Your task to perform on an android device: Add "panasonic triple a" to the cart on target.com Image 0: 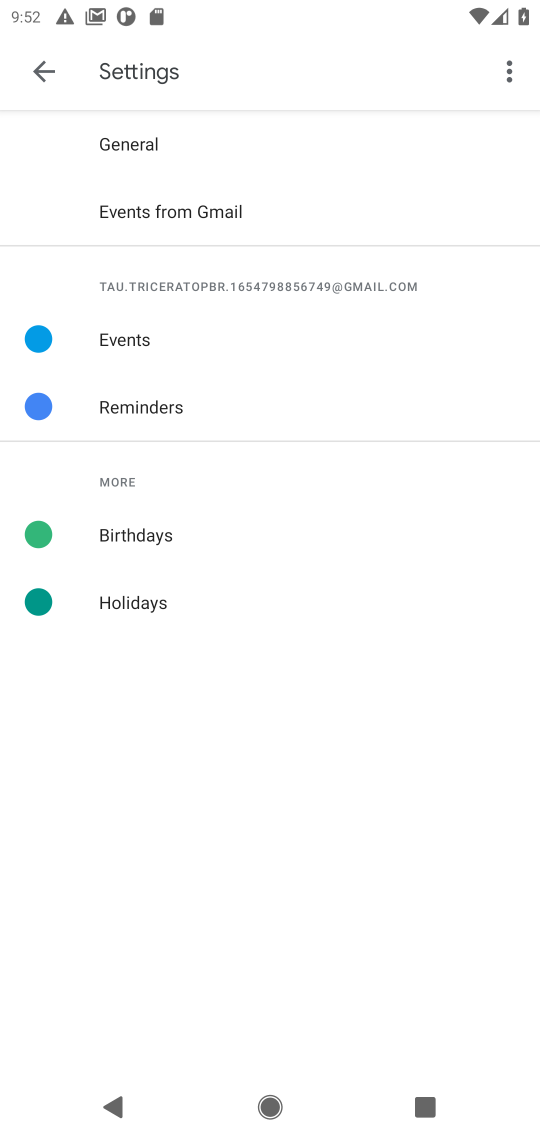
Step 0: press home button
Your task to perform on an android device: Add "panasonic triple a" to the cart on target.com Image 1: 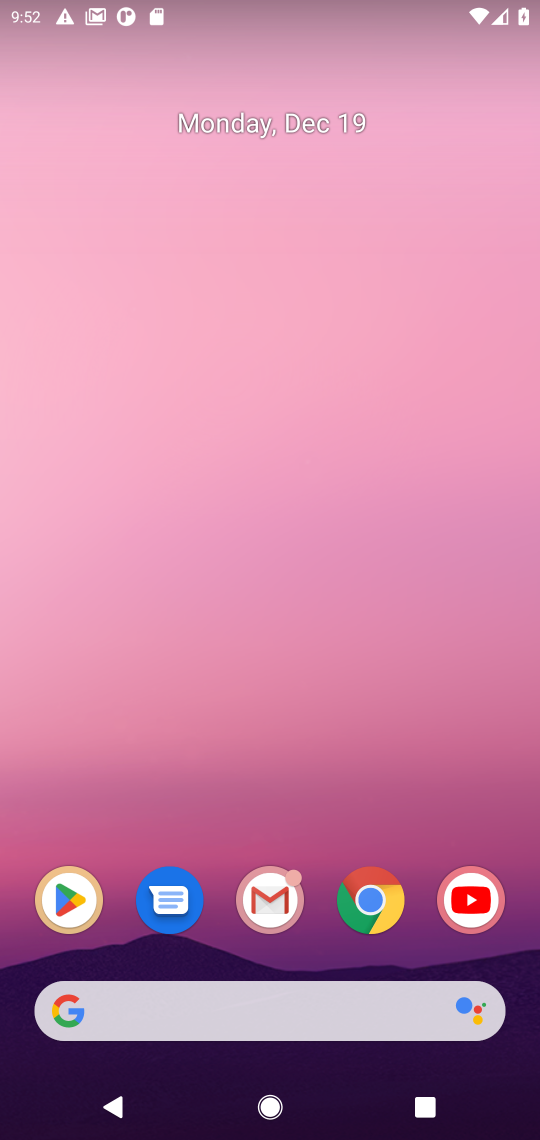
Step 1: type "target"
Your task to perform on an android device: Add "panasonic triple a" to the cart on target.com Image 2: 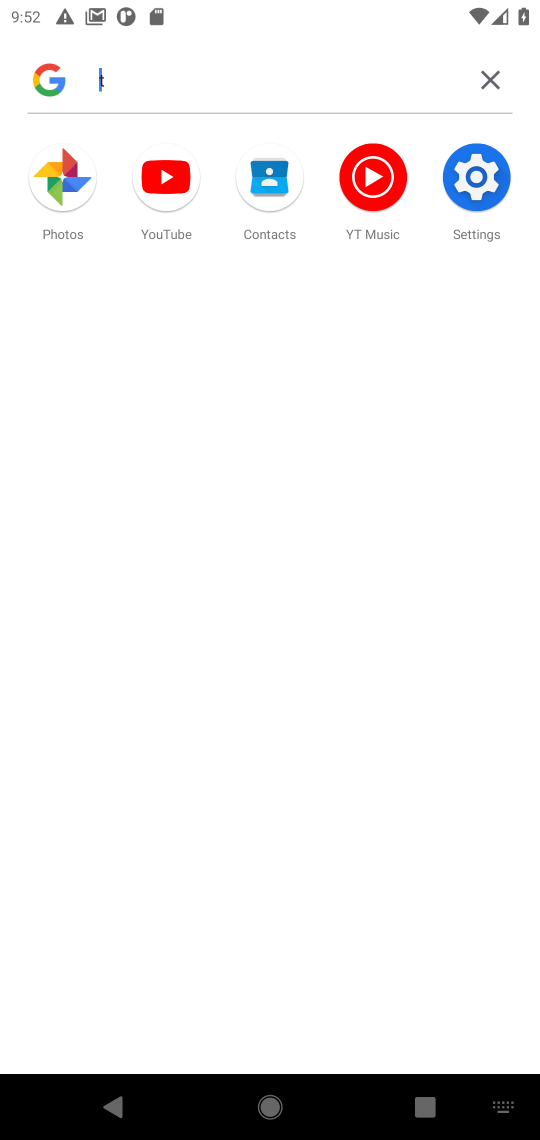
Step 2: click (489, 75)
Your task to perform on an android device: Add "panasonic triple a" to the cart on target.com Image 3: 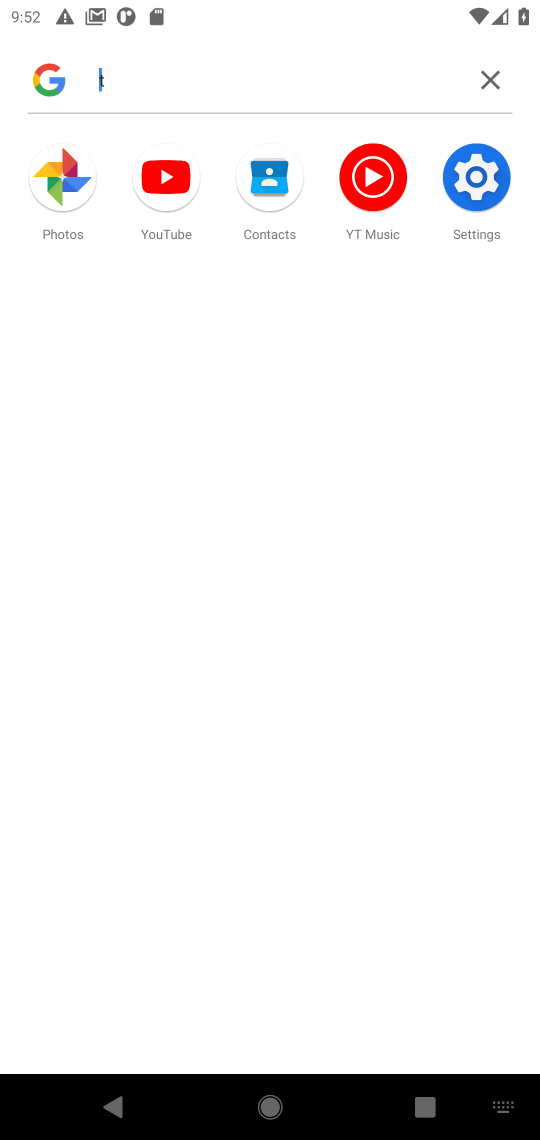
Step 3: click (406, 78)
Your task to perform on an android device: Add "panasonic triple a" to the cart on target.com Image 4: 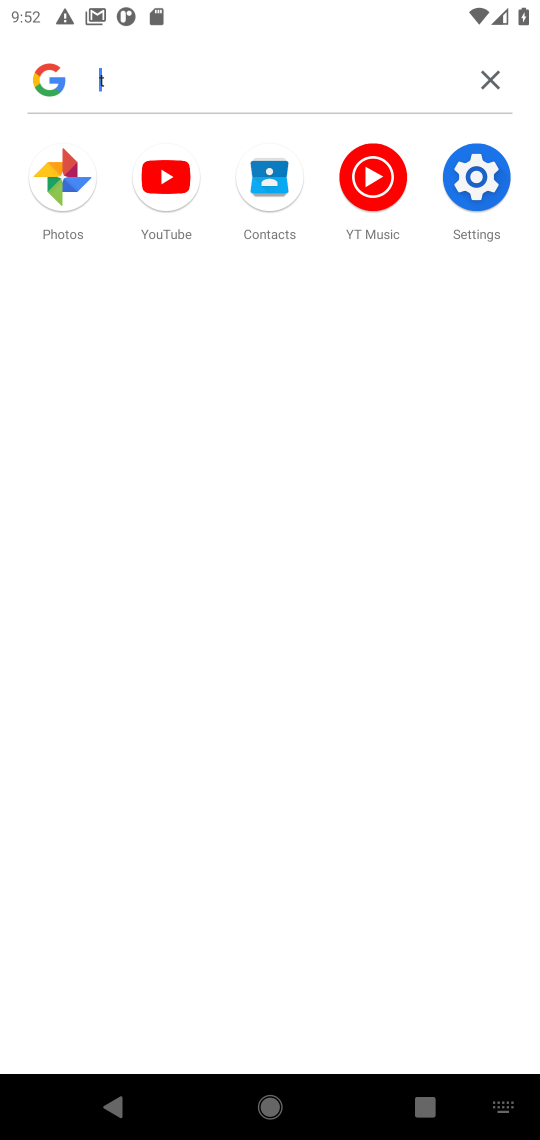
Step 4: click (487, 79)
Your task to perform on an android device: Add "panasonic triple a" to the cart on target.com Image 5: 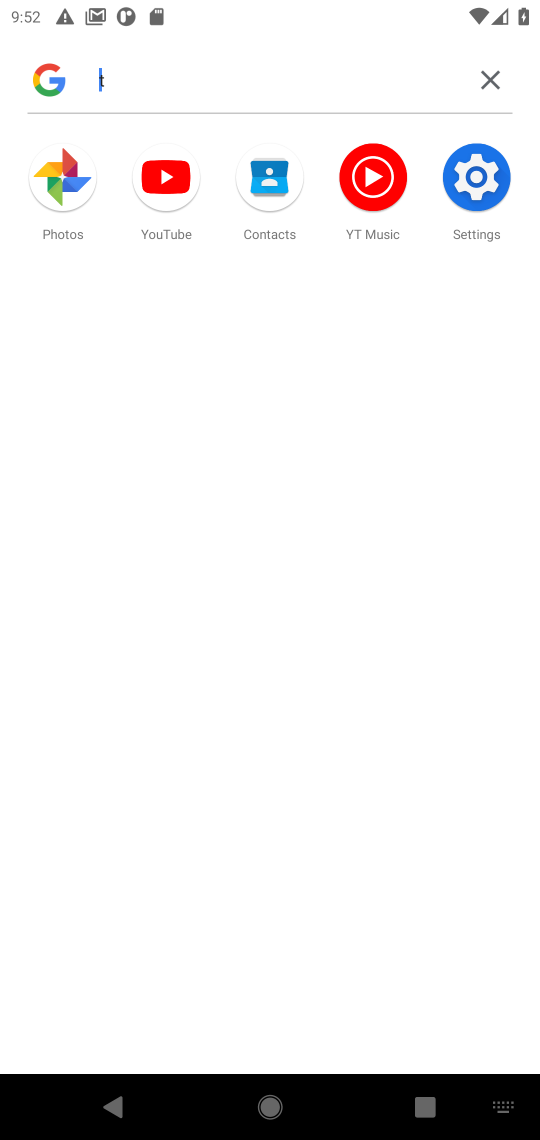
Step 5: click (487, 79)
Your task to perform on an android device: Add "panasonic triple a" to the cart on target.com Image 6: 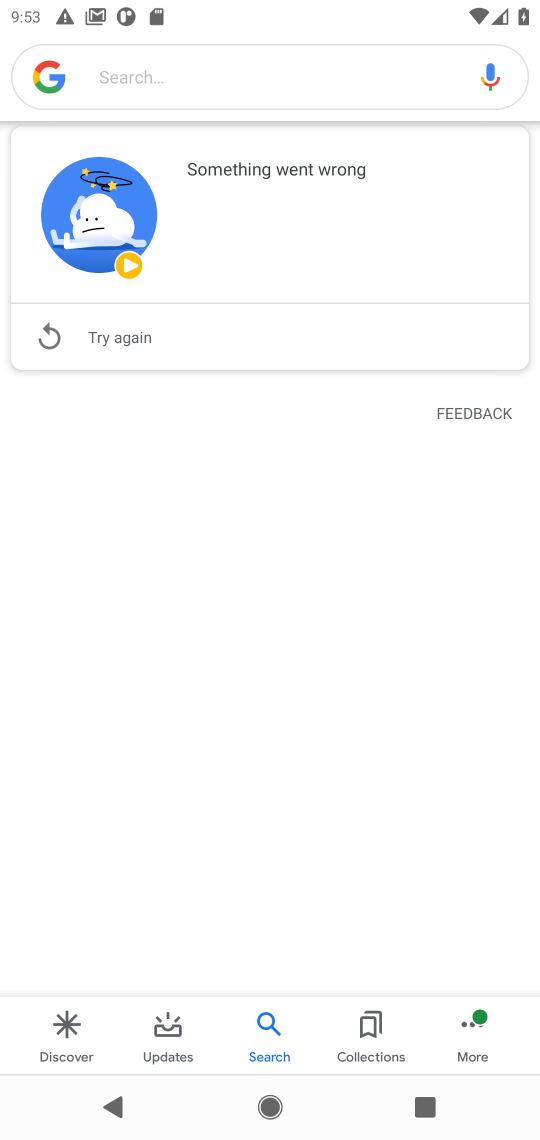
Step 6: click (287, 77)
Your task to perform on an android device: Add "panasonic triple a" to the cart on target.com Image 7: 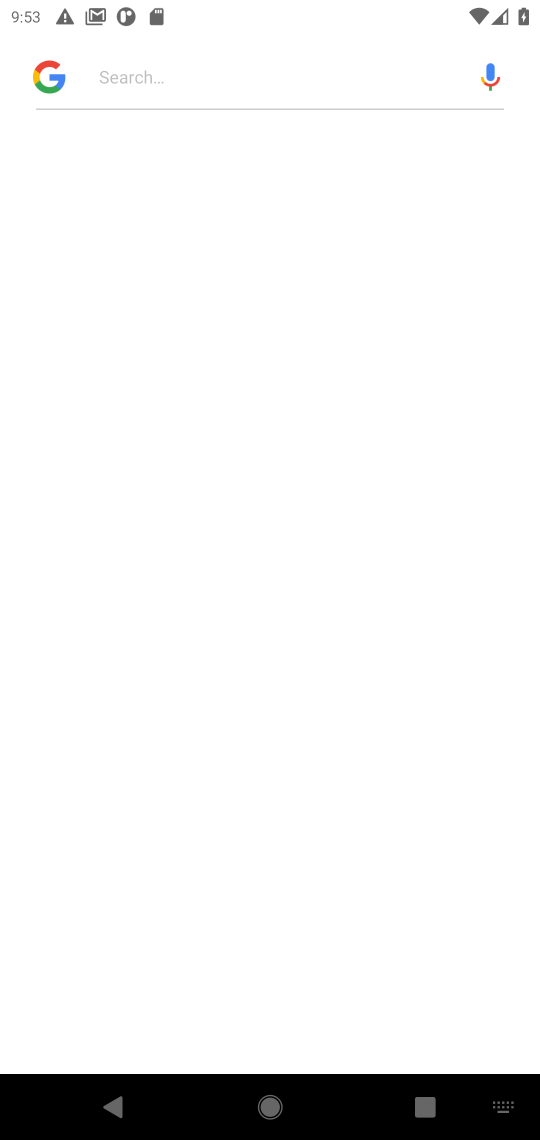
Step 7: type "target"
Your task to perform on an android device: Add "panasonic triple a" to the cart on target.com Image 8: 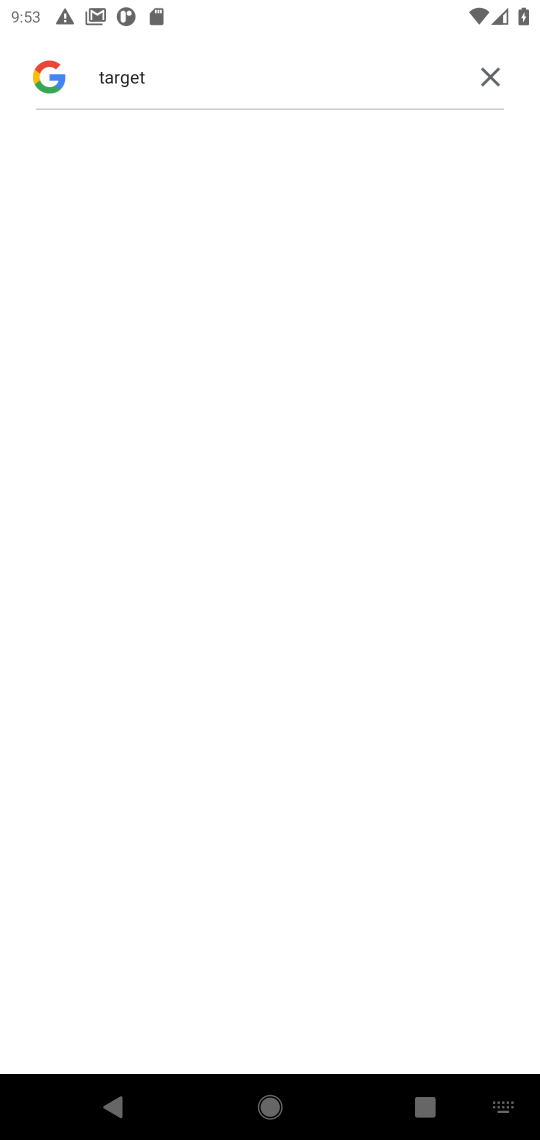
Step 8: task complete